Your task to perform on an android device: turn on bluetooth scan Image 0: 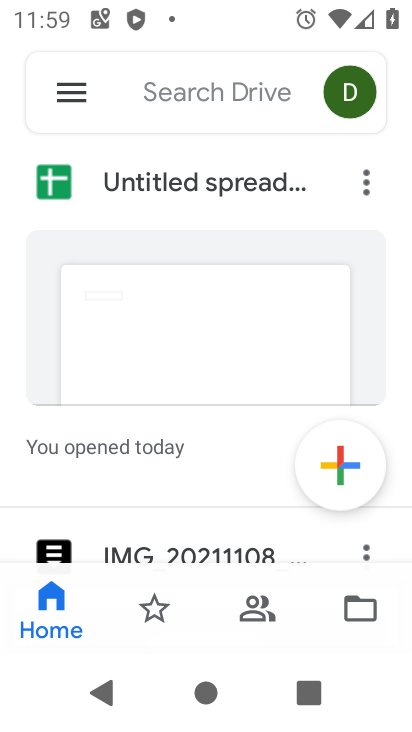
Step 0: press home button
Your task to perform on an android device: turn on bluetooth scan Image 1: 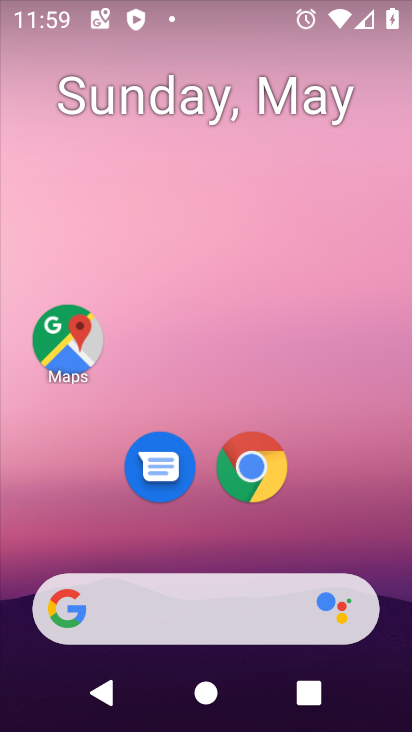
Step 1: drag from (350, 559) to (364, 12)
Your task to perform on an android device: turn on bluetooth scan Image 2: 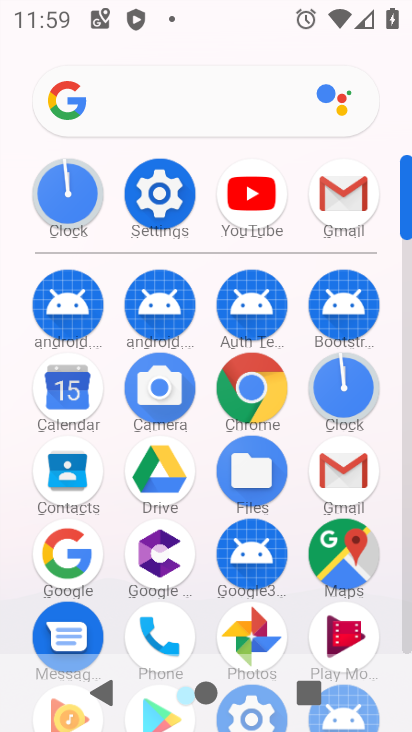
Step 2: click (163, 203)
Your task to perform on an android device: turn on bluetooth scan Image 3: 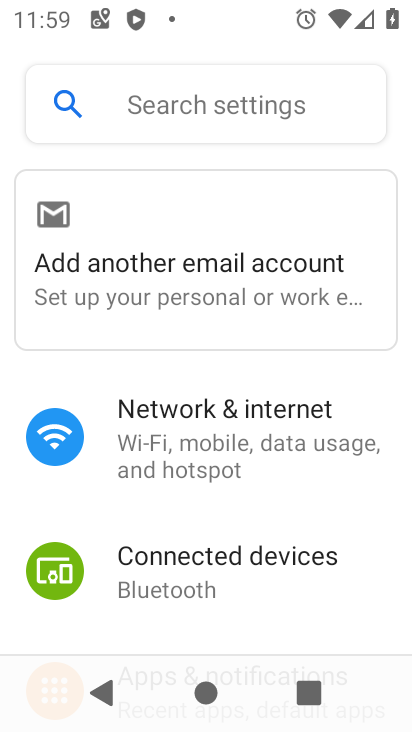
Step 3: drag from (367, 585) to (341, 34)
Your task to perform on an android device: turn on bluetooth scan Image 4: 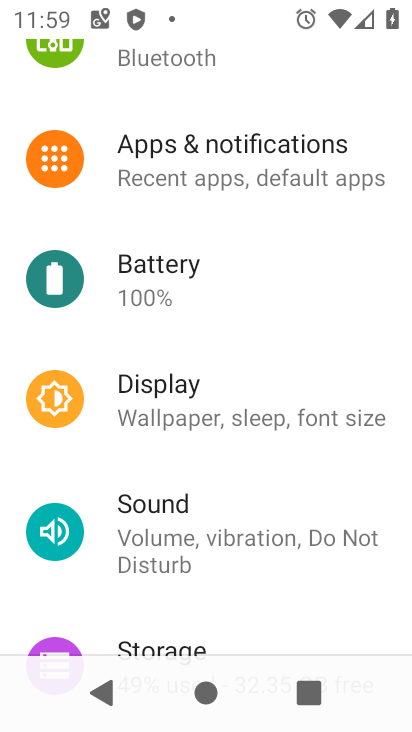
Step 4: drag from (301, 513) to (288, 132)
Your task to perform on an android device: turn on bluetooth scan Image 5: 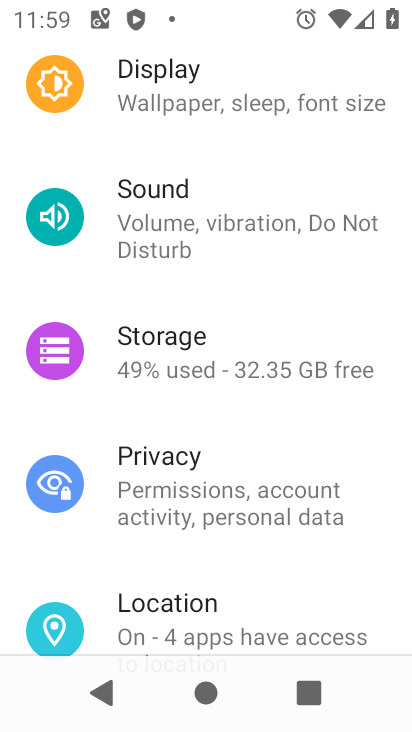
Step 5: click (140, 605)
Your task to perform on an android device: turn on bluetooth scan Image 6: 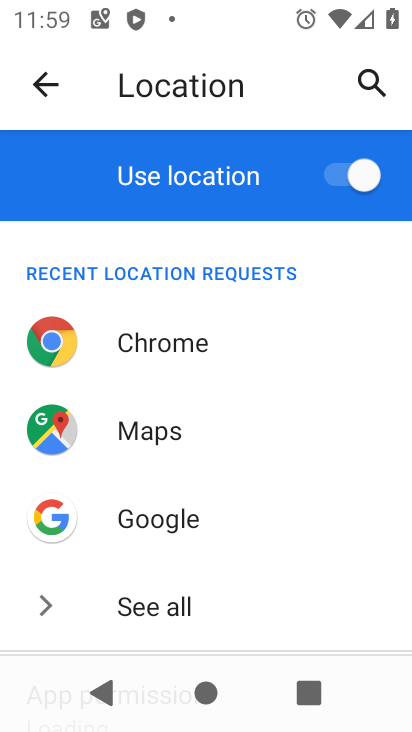
Step 6: drag from (248, 525) to (242, 95)
Your task to perform on an android device: turn on bluetooth scan Image 7: 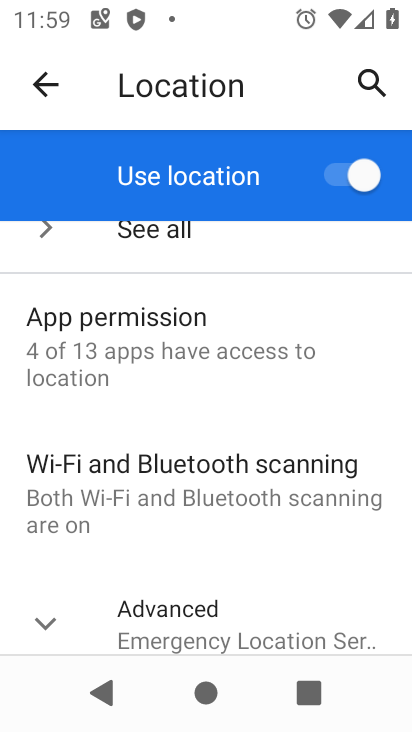
Step 7: click (89, 490)
Your task to perform on an android device: turn on bluetooth scan Image 8: 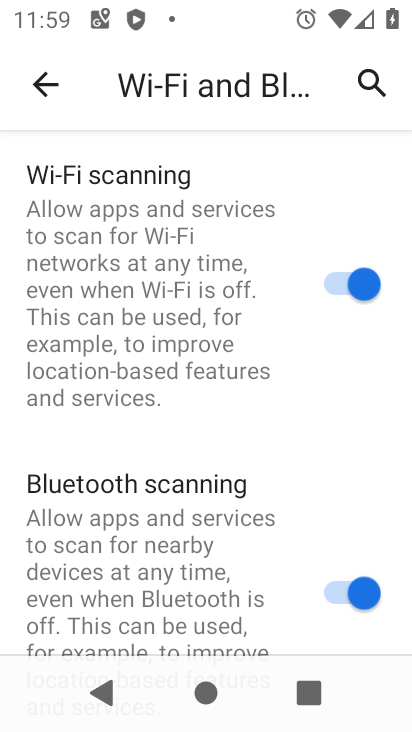
Step 8: task complete